Your task to perform on an android device: turn off javascript in the chrome app Image 0: 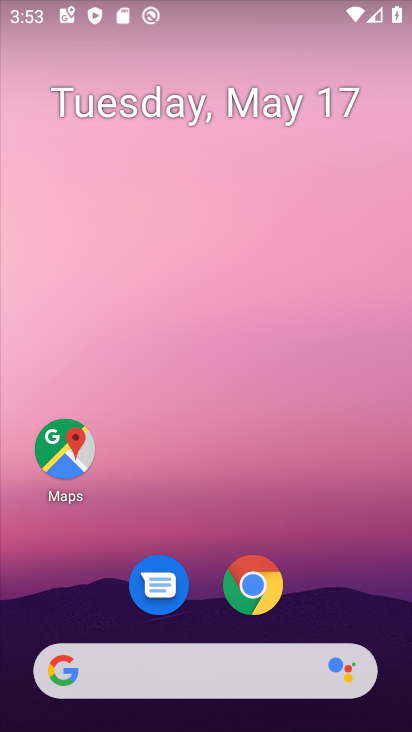
Step 0: click (250, 587)
Your task to perform on an android device: turn off javascript in the chrome app Image 1: 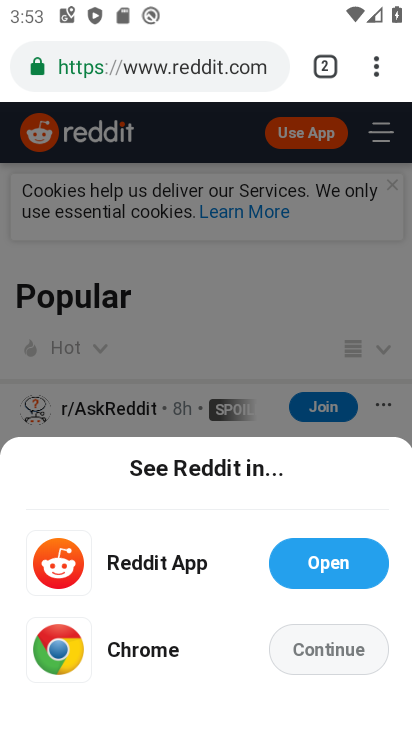
Step 1: click (375, 67)
Your task to perform on an android device: turn off javascript in the chrome app Image 2: 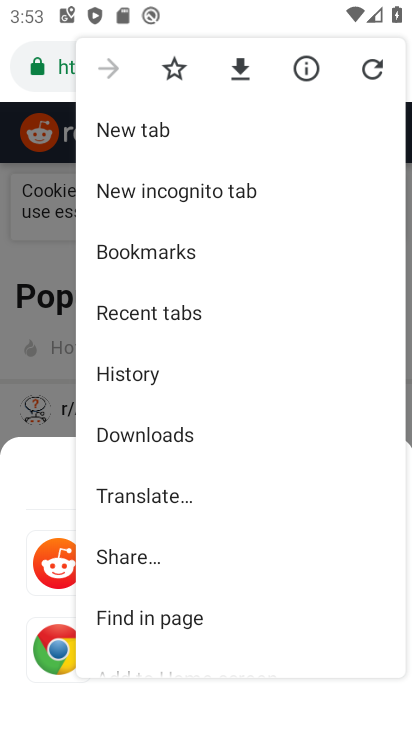
Step 2: drag from (210, 511) to (241, 214)
Your task to perform on an android device: turn off javascript in the chrome app Image 3: 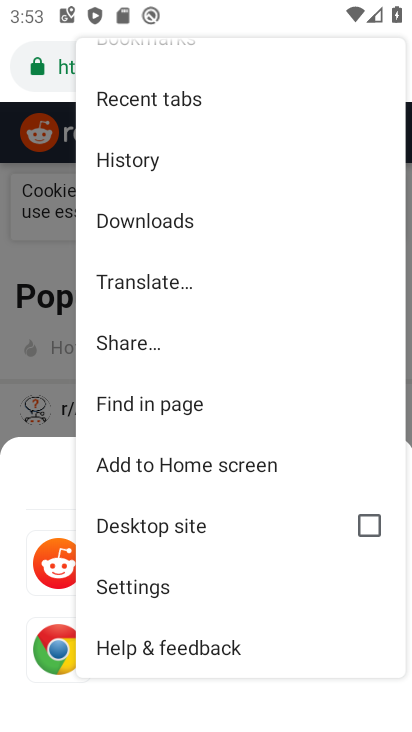
Step 3: click (171, 593)
Your task to perform on an android device: turn off javascript in the chrome app Image 4: 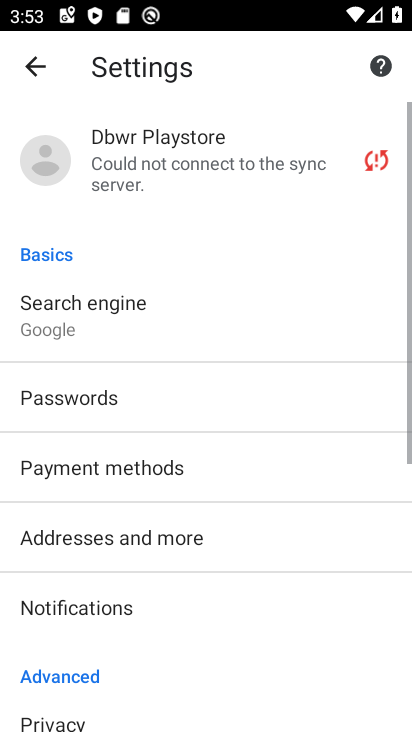
Step 4: drag from (210, 598) to (238, 189)
Your task to perform on an android device: turn off javascript in the chrome app Image 5: 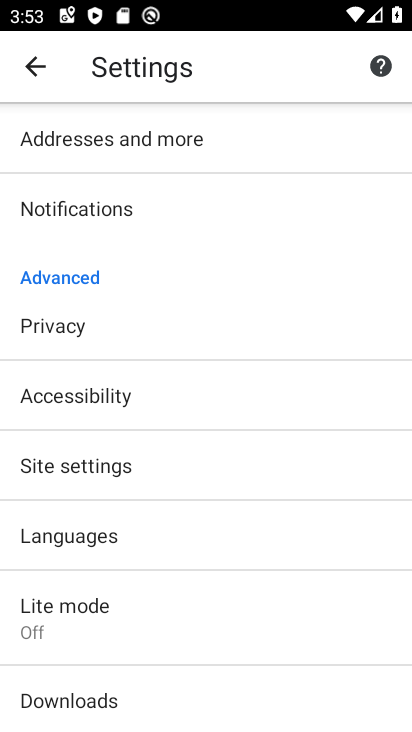
Step 5: click (209, 475)
Your task to perform on an android device: turn off javascript in the chrome app Image 6: 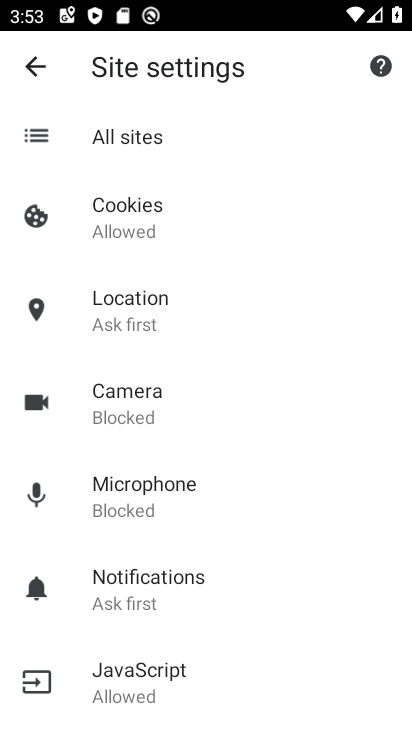
Step 6: click (215, 686)
Your task to perform on an android device: turn off javascript in the chrome app Image 7: 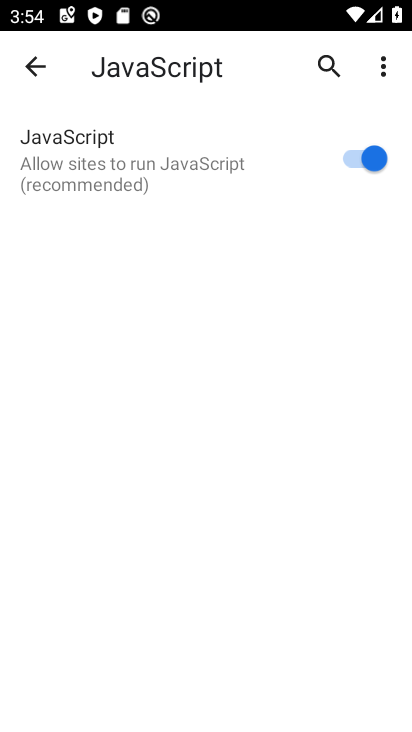
Step 7: click (346, 153)
Your task to perform on an android device: turn off javascript in the chrome app Image 8: 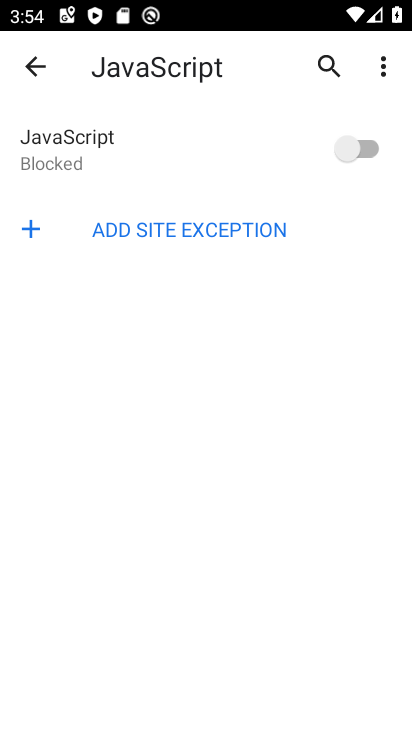
Step 8: task complete